Your task to perform on an android device: Open Chrome and go to the settings page Image 0: 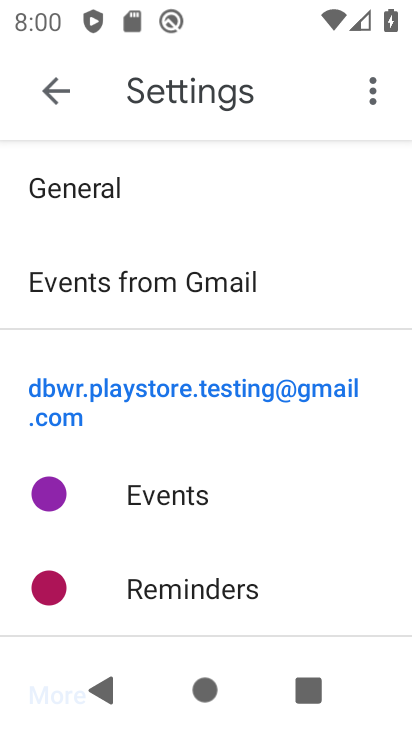
Step 0: press home button
Your task to perform on an android device: Open Chrome and go to the settings page Image 1: 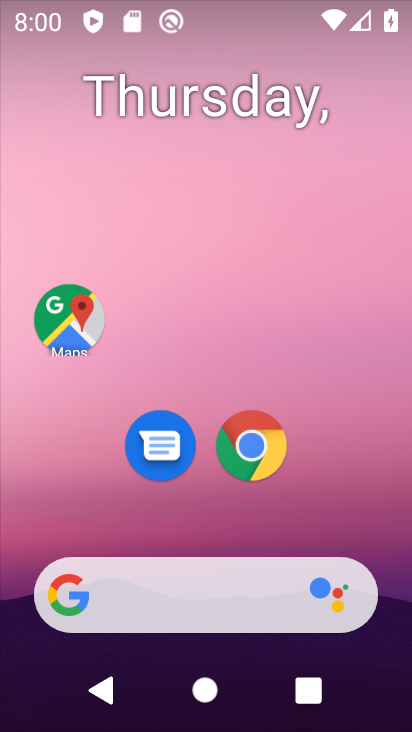
Step 1: click (253, 448)
Your task to perform on an android device: Open Chrome and go to the settings page Image 2: 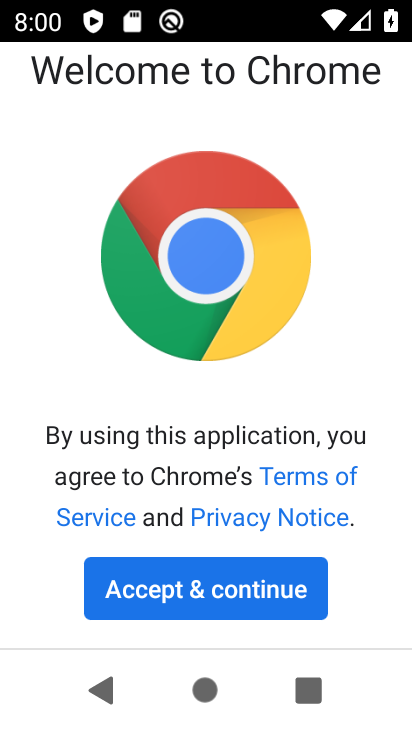
Step 2: click (220, 581)
Your task to perform on an android device: Open Chrome and go to the settings page Image 3: 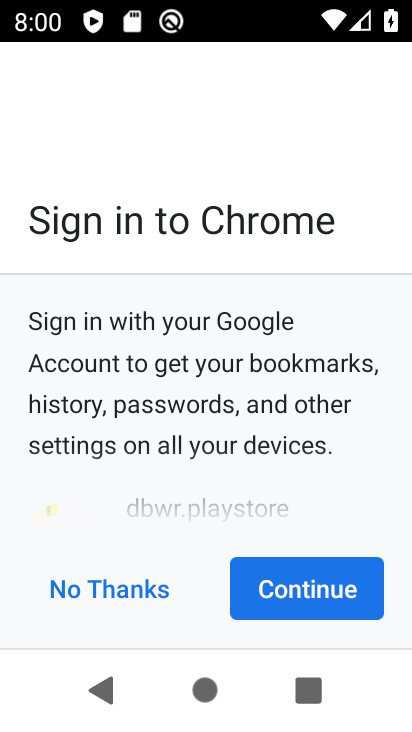
Step 3: click (67, 599)
Your task to perform on an android device: Open Chrome and go to the settings page Image 4: 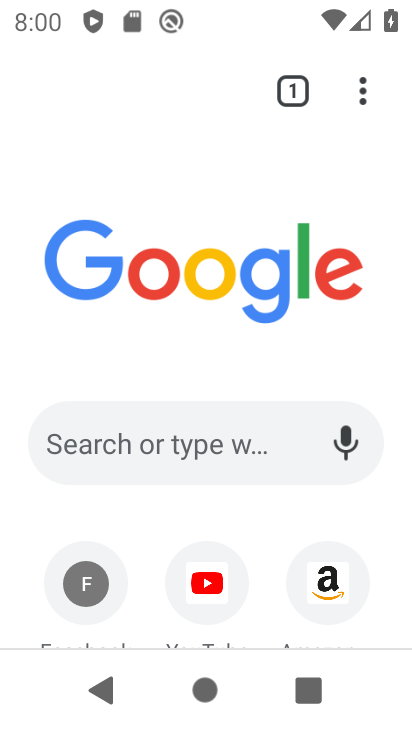
Step 4: click (361, 102)
Your task to perform on an android device: Open Chrome and go to the settings page Image 5: 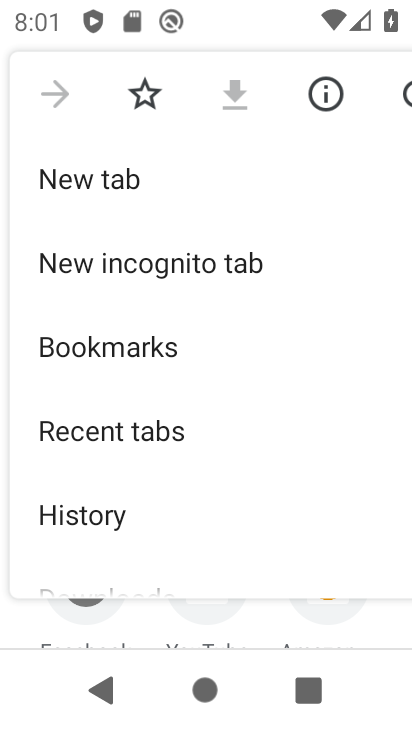
Step 5: drag from (259, 530) to (227, 72)
Your task to perform on an android device: Open Chrome and go to the settings page Image 6: 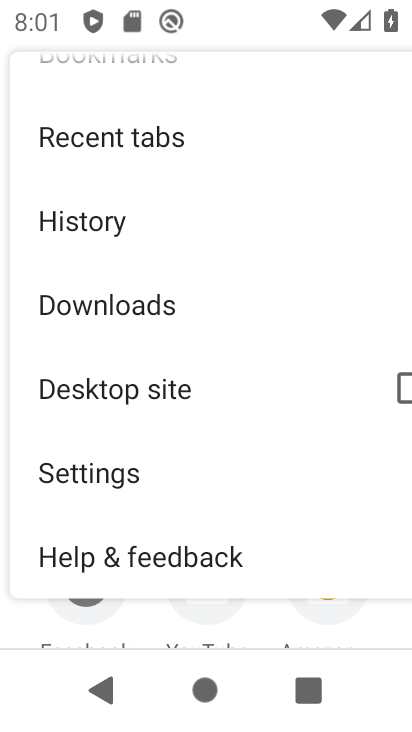
Step 6: click (72, 479)
Your task to perform on an android device: Open Chrome and go to the settings page Image 7: 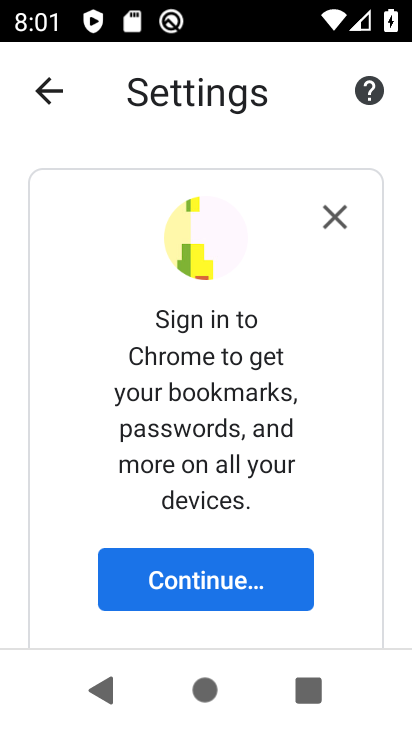
Step 7: task complete